Your task to perform on an android device: Open Google Maps Image 0: 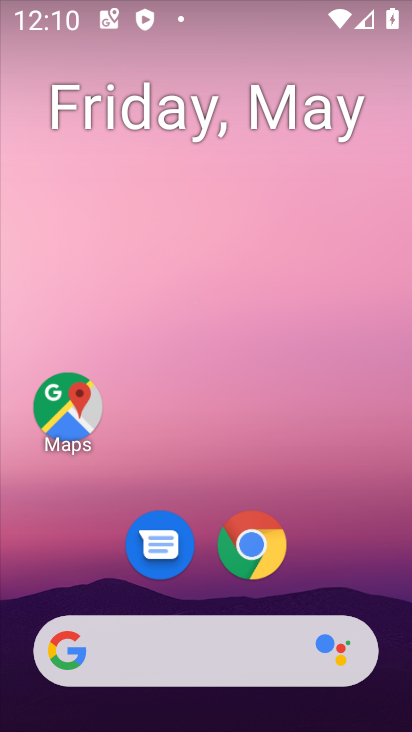
Step 0: click (35, 401)
Your task to perform on an android device: Open Google Maps Image 1: 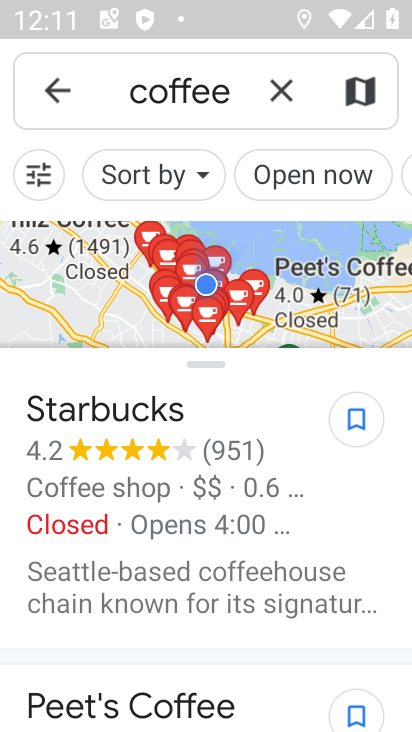
Step 1: task complete